Your task to perform on an android device: Go to wifi settings Image 0: 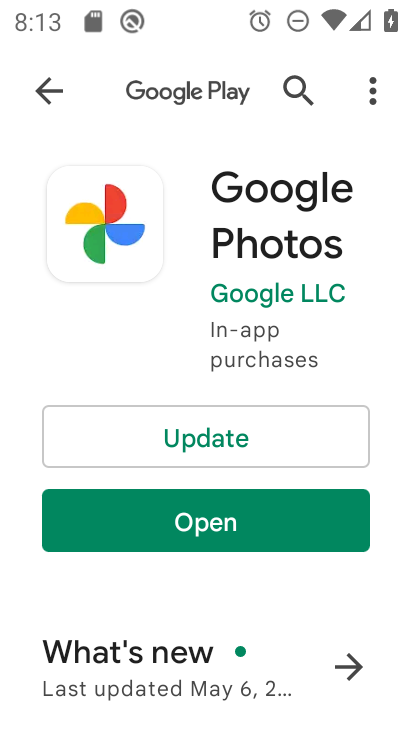
Step 0: press home button
Your task to perform on an android device: Go to wifi settings Image 1: 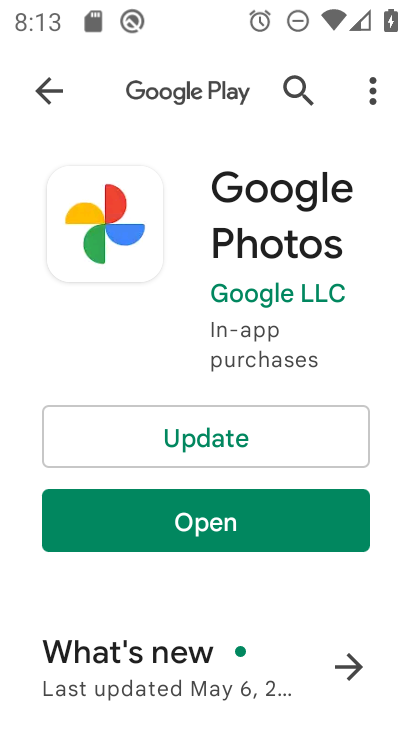
Step 1: press home button
Your task to perform on an android device: Go to wifi settings Image 2: 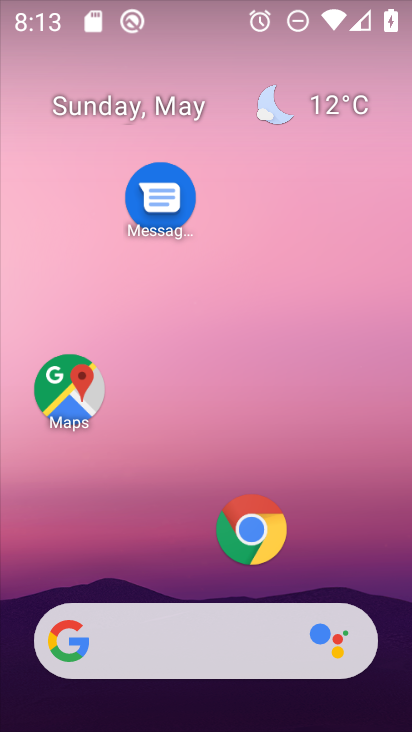
Step 2: drag from (197, 577) to (221, 50)
Your task to perform on an android device: Go to wifi settings Image 3: 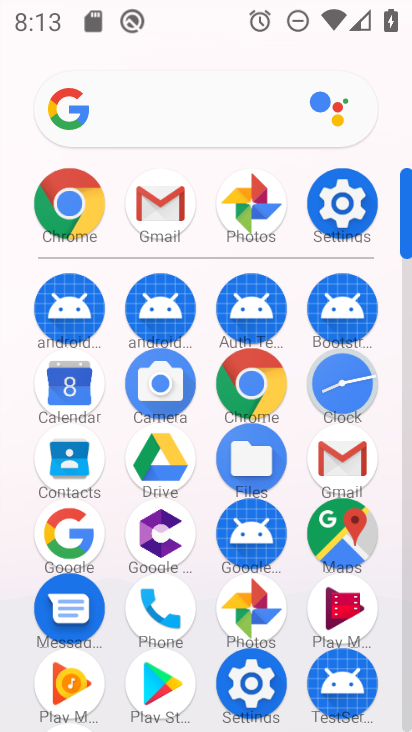
Step 3: click (336, 192)
Your task to perform on an android device: Go to wifi settings Image 4: 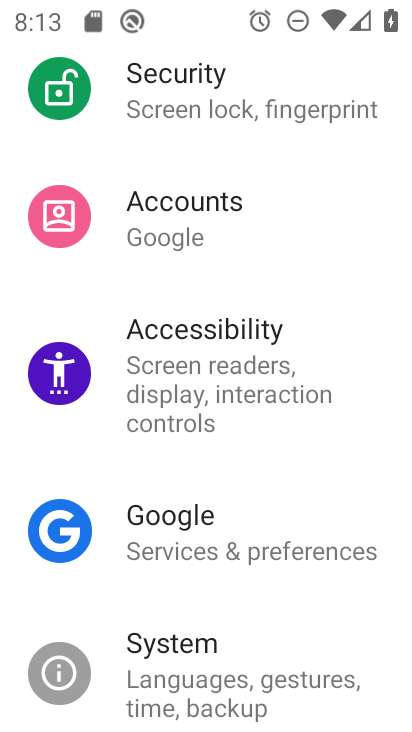
Step 4: drag from (188, 125) to (221, 715)
Your task to perform on an android device: Go to wifi settings Image 5: 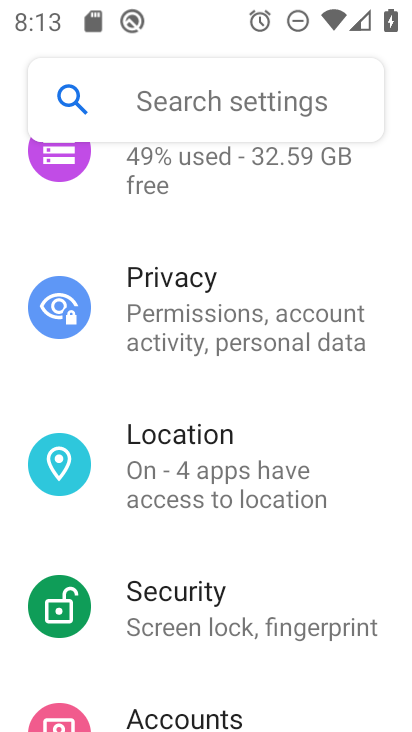
Step 5: drag from (185, 181) to (203, 728)
Your task to perform on an android device: Go to wifi settings Image 6: 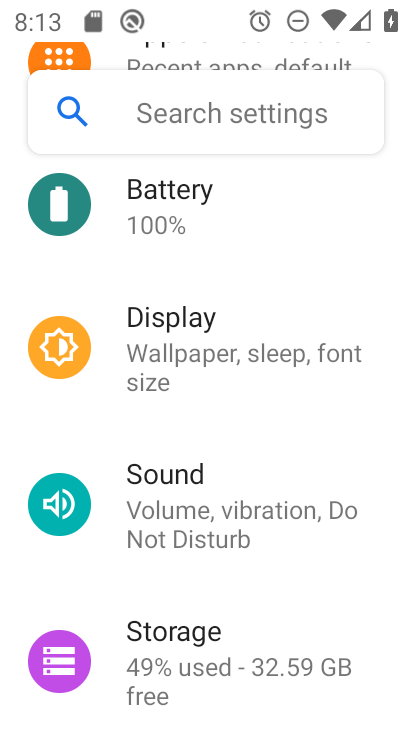
Step 6: drag from (186, 217) to (268, 722)
Your task to perform on an android device: Go to wifi settings Image 7: 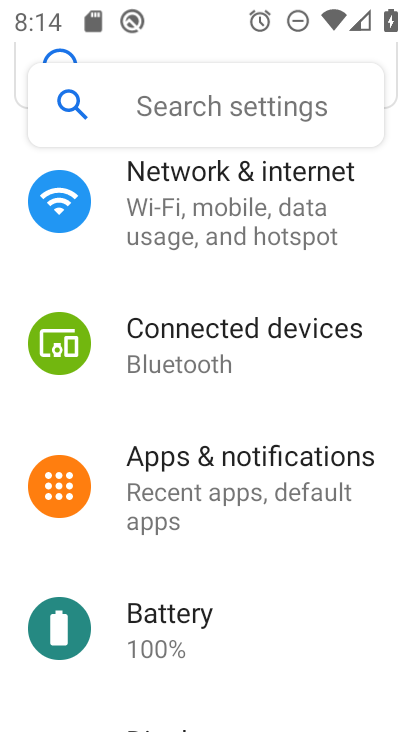
Step 7: click (208, 206)
Your task to perform on an android device: Go to wifi settings Image 8: 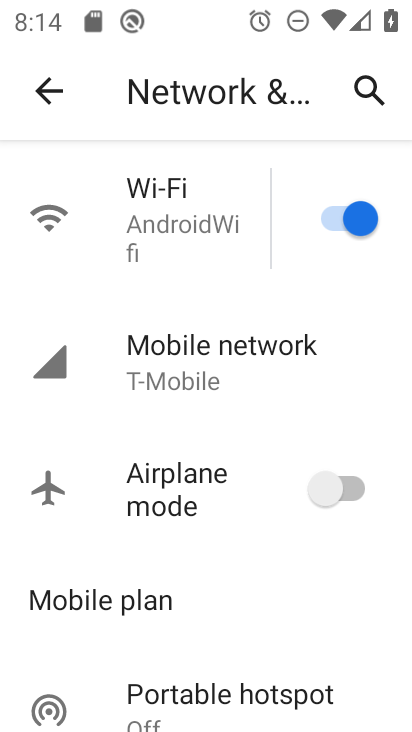
Step 8: click (182, 220)
Your task to perform on an android device: Go to wifi settings Image 9: 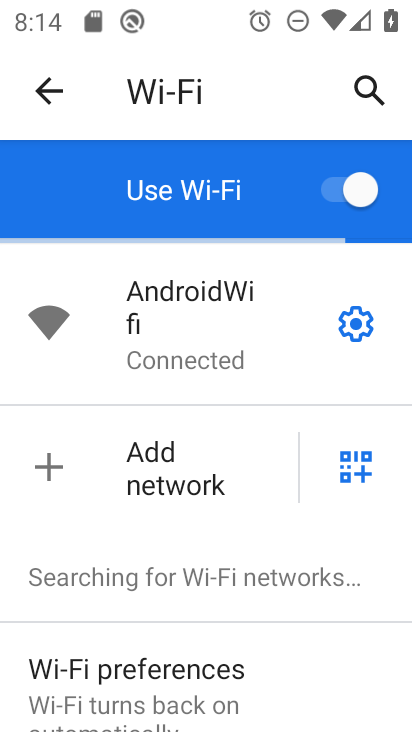
Step 9: task complete